Your task to perform on an android device: Go to Google maps Image 0: 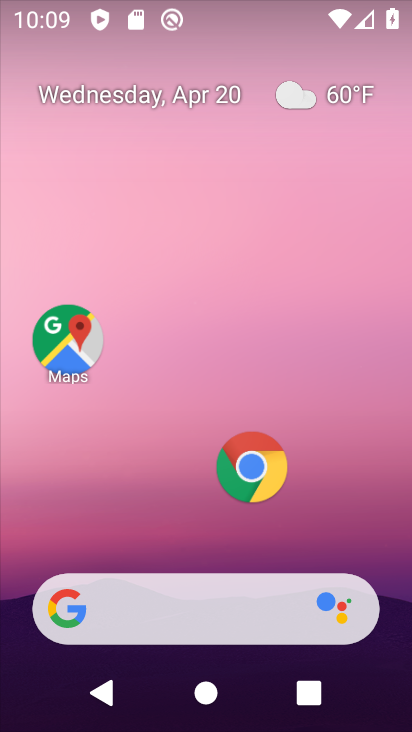
Step 0: drag from (309, 528) to (325, 50)
Your task to perform on an android device: Go to Google maps Image 1: 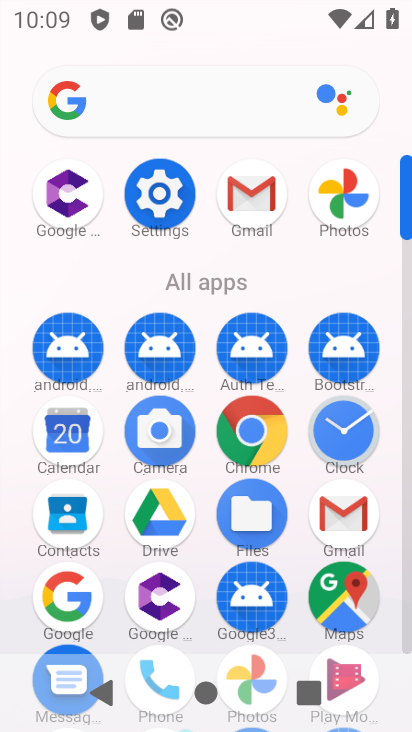
Step 1: click (352, 604)
Your task to perform on an android device: Go to Google maps Image 2: 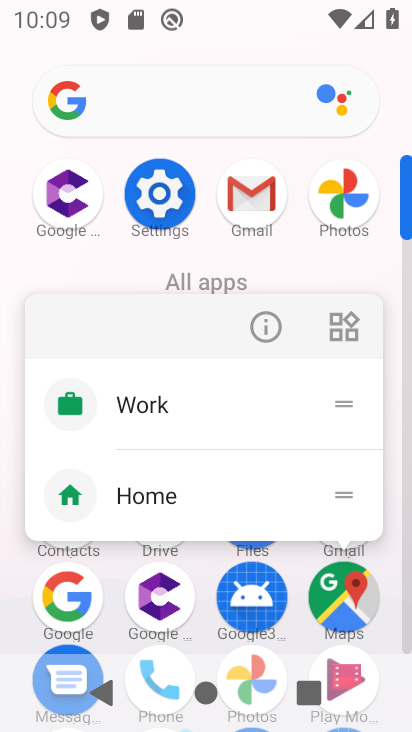
Step 2: click (346, 578)
Your task to perform on an android device: Go to Google maps Image 3: 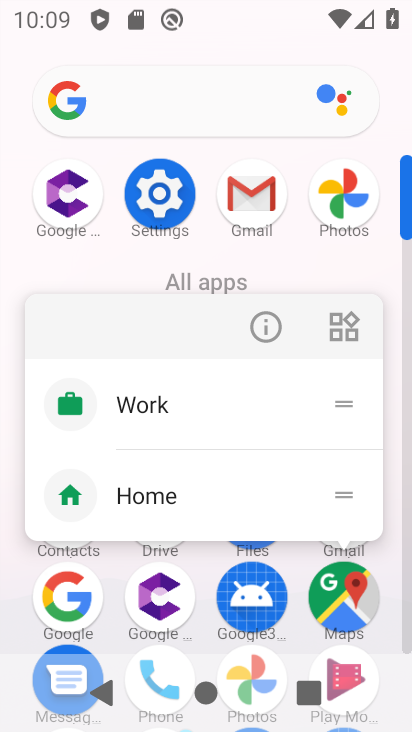
Step 3: click (347, 584)
Your task to perform on an android device: Go to Google maps Image 4: 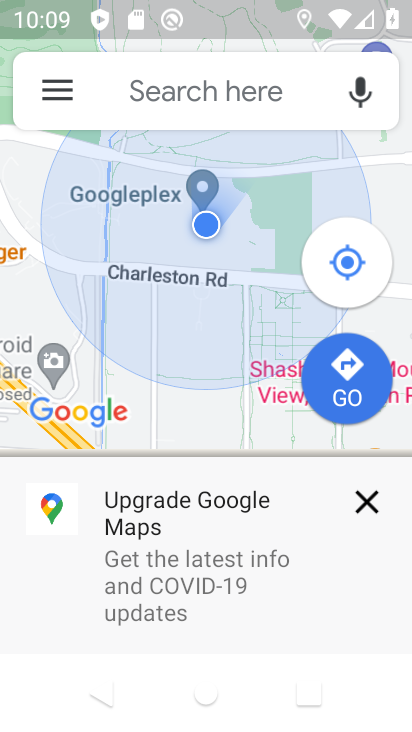
Step 4: task complete